Your task to perform on an android device: Clear the cart on newegg.com. Search for "razer thresher" on newegg.com, select the first entry, and add it to the cart. Image 0: 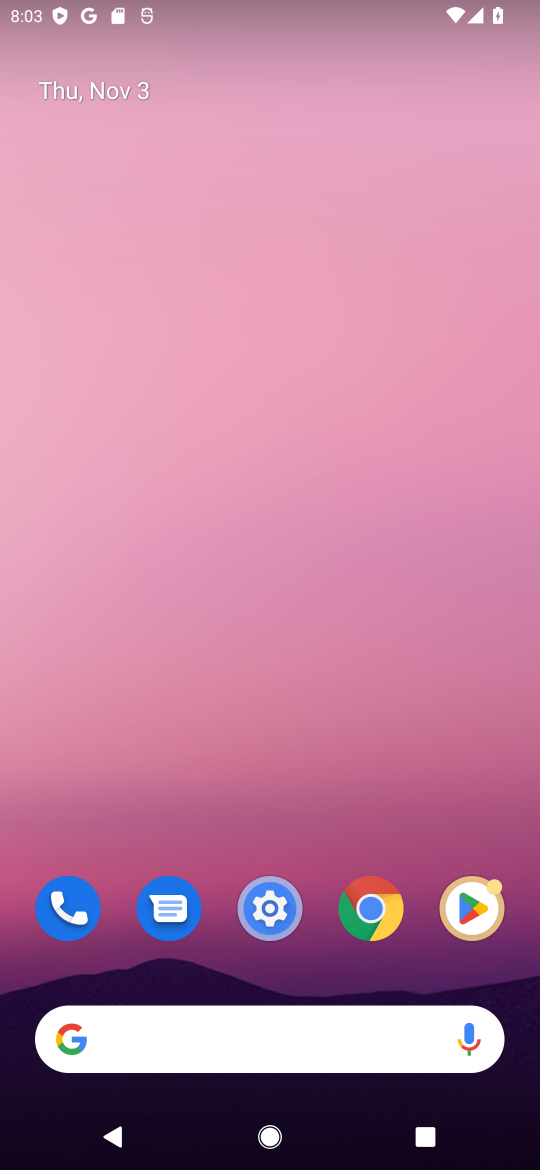
Step 0: click (384, 920)
Your task to perform on an android device: Clear the cart on newegg.com. Search for "razer thresher" on newegg.com, select the first entry, and add it to the cart. Image 1: 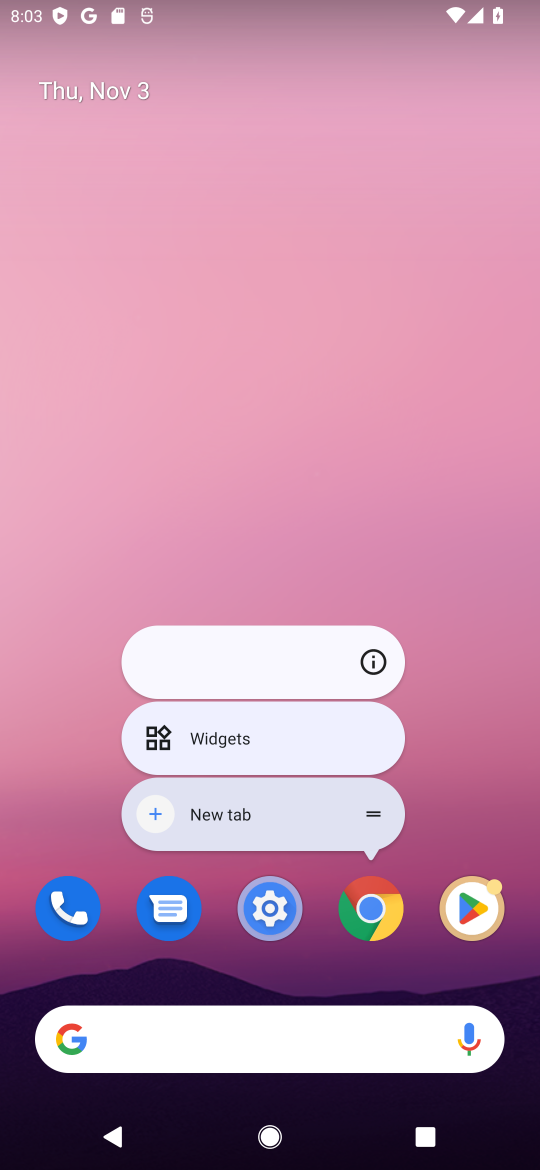
Step 1: click (384, 920)
Your task to perform on an android device: Clear the cart on newegg.com. Search for "razer thresher" on newegg.com, select the first entry, and add it to the cart. Image 2: 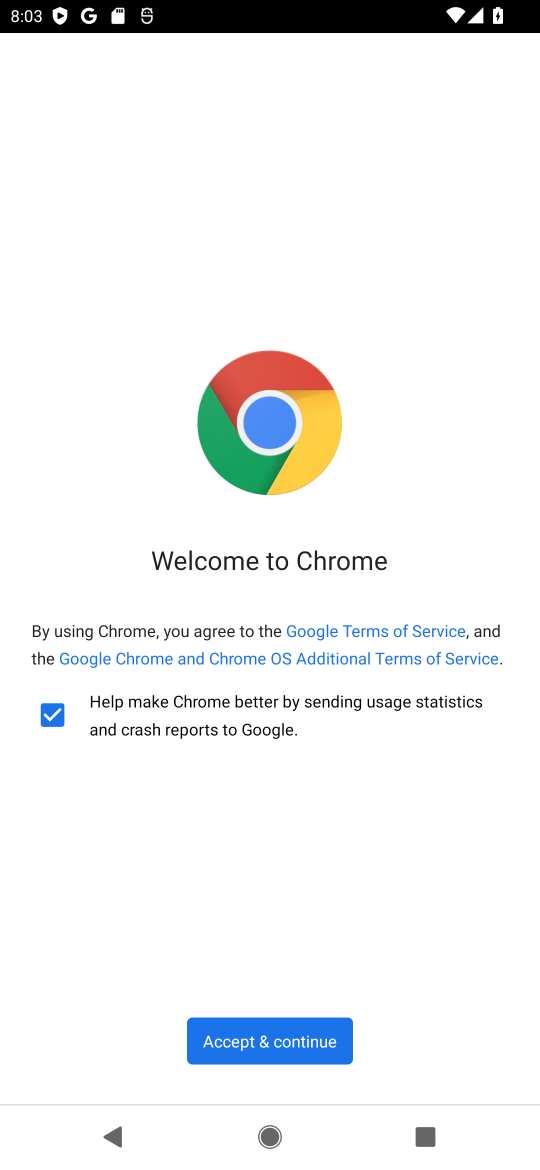
Step 2: click (318, 1034)
Your task to perform on an android device: Clear the cart on newegg.com. Search for "razer thresher" on newegg.com, select the first entry, and add it to the cart. Image 3: 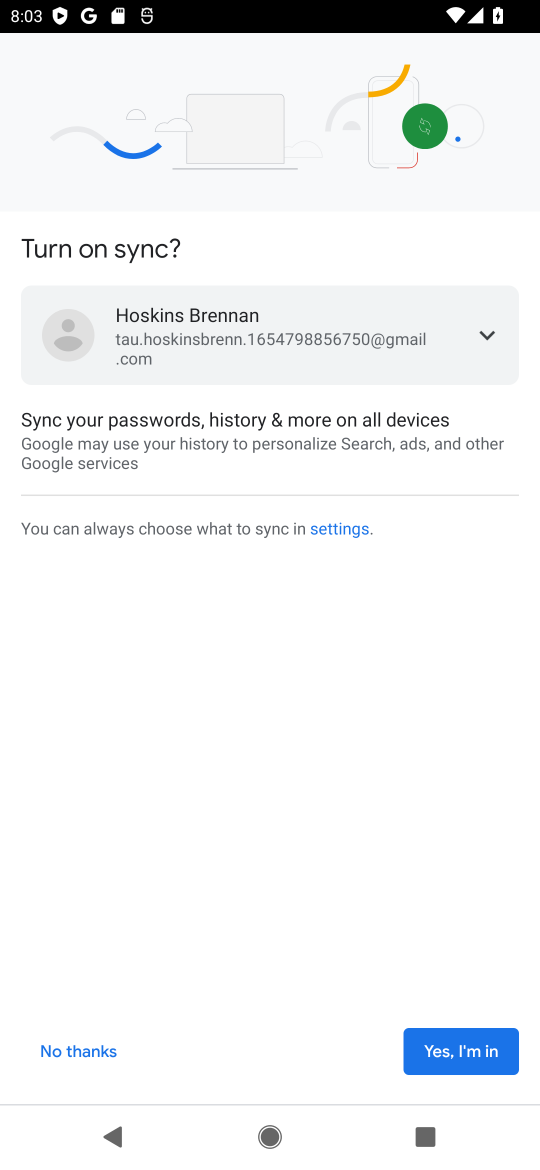
Step 3: click (440, 1061)
Your task to perform on an android device: Clear the cart on newegg.com. Search for "razer thresher" on newegg.com, select the first entry, and add it to the cart. Image 4: 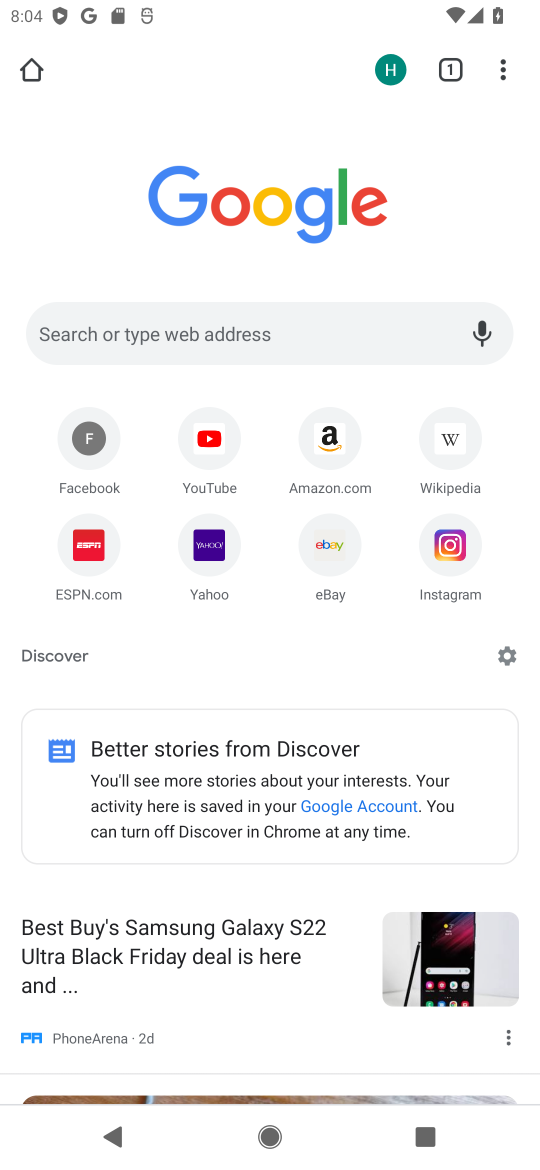
Step 4: click (219, 324)
Your task to perform on an android device: Clear the cart on newegg.com. Search for "razer thresher" on newegg.com, select the first entry, and add it to the cart. Image 5: 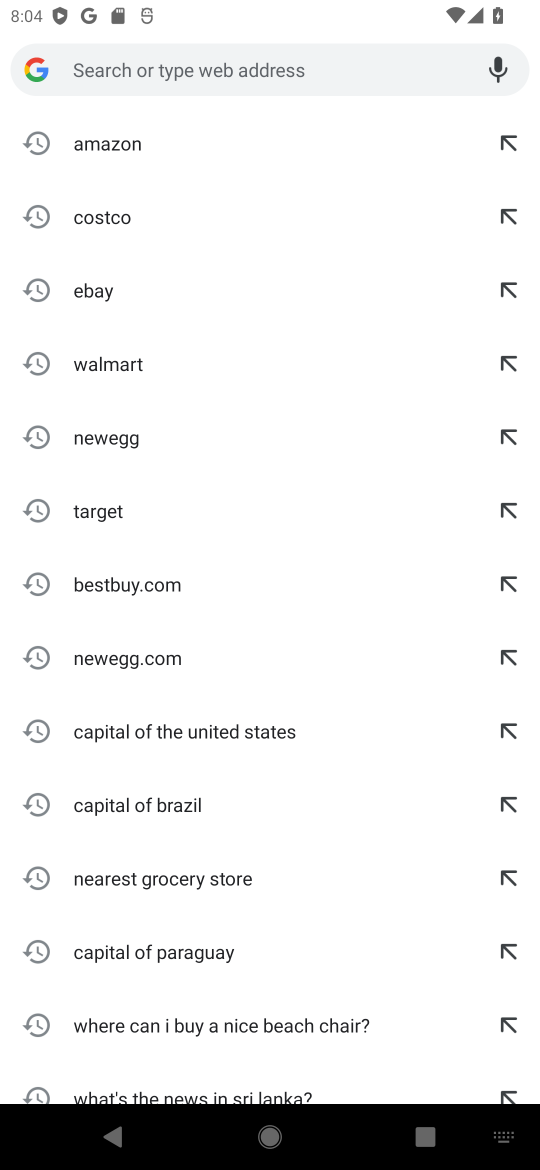
Step 5: click (153, 656)
Your task to perform on an android device: Clear the cart on newegg.com. Search for "razer thresher" on newegg.com, select the first entry, and add it to the cart. Image 6: 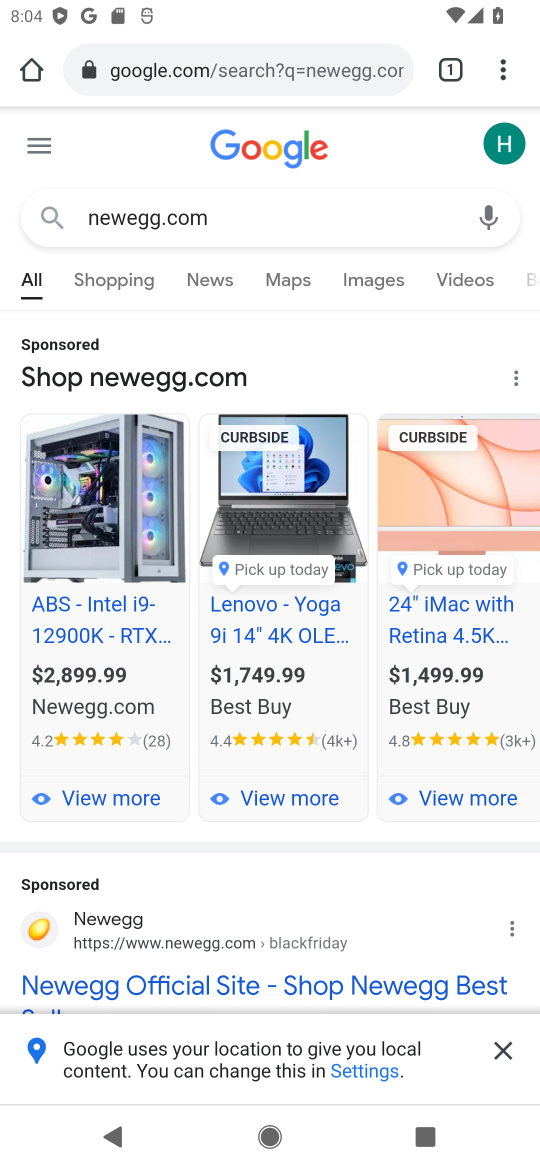
Step 6: click (250, 943)
Your task to perform on an android device: Clear the cart on newegg.com. Search for "razer thresher" on newegg.com, select the first entry, and add it to the cart. Image 7: 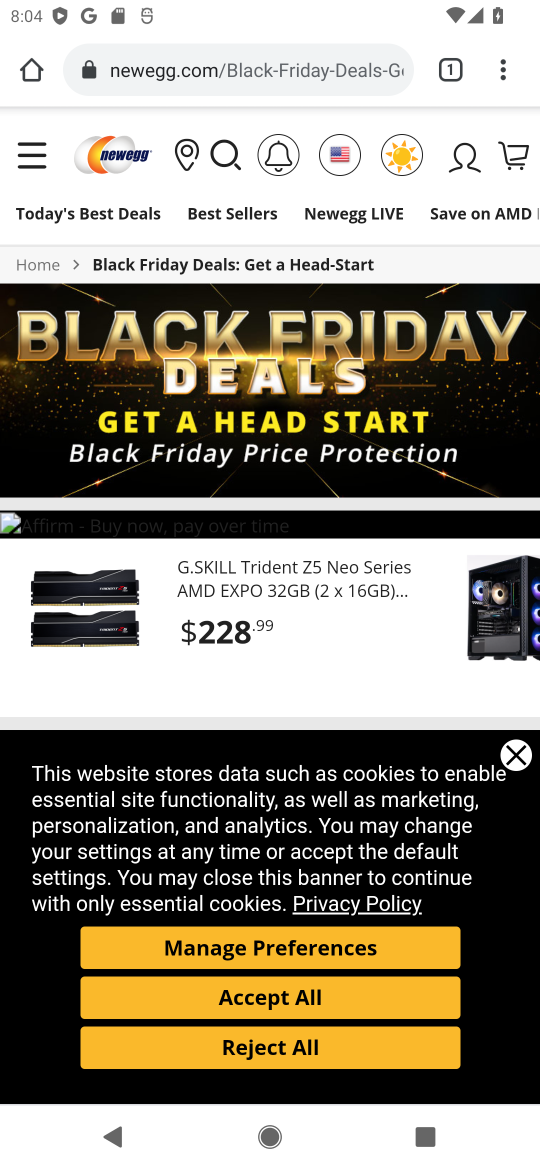
Step 7: click (308, 998)
Your task to perform on an android device: Clear the cart on newegg.com. Search for "razer thresher" on newegg.com, select the first entry, and add it to the cart. Image 8: 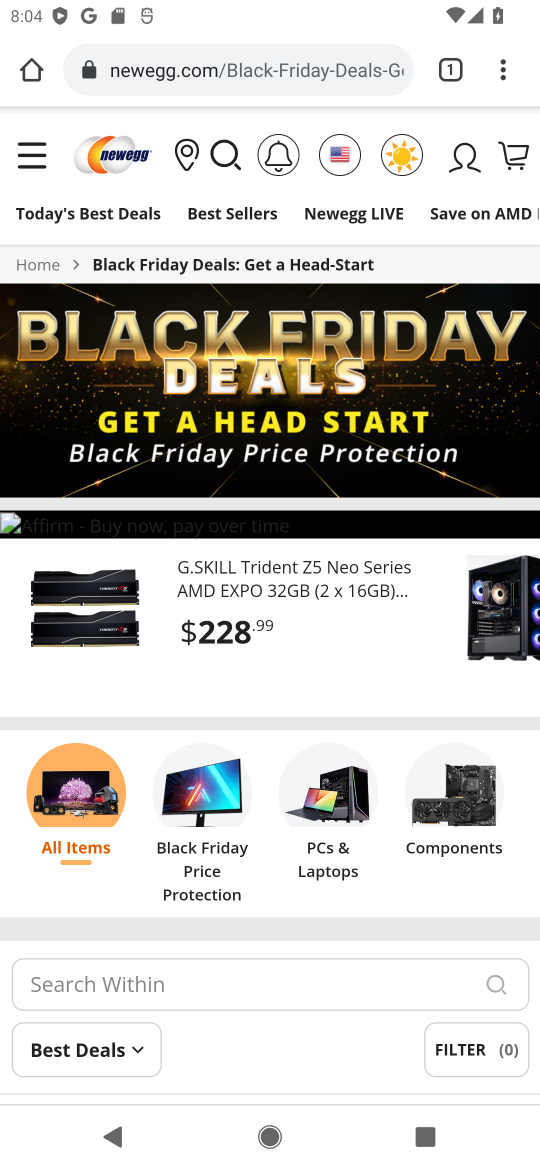
Step 8: drag from (287, 495) to (327, 785)
Your task to perform on an android device: Clear the cart on newegg.com. Search for "razer thresher" on newegg.com, select the first entry, and add it to the cart. Image 9: 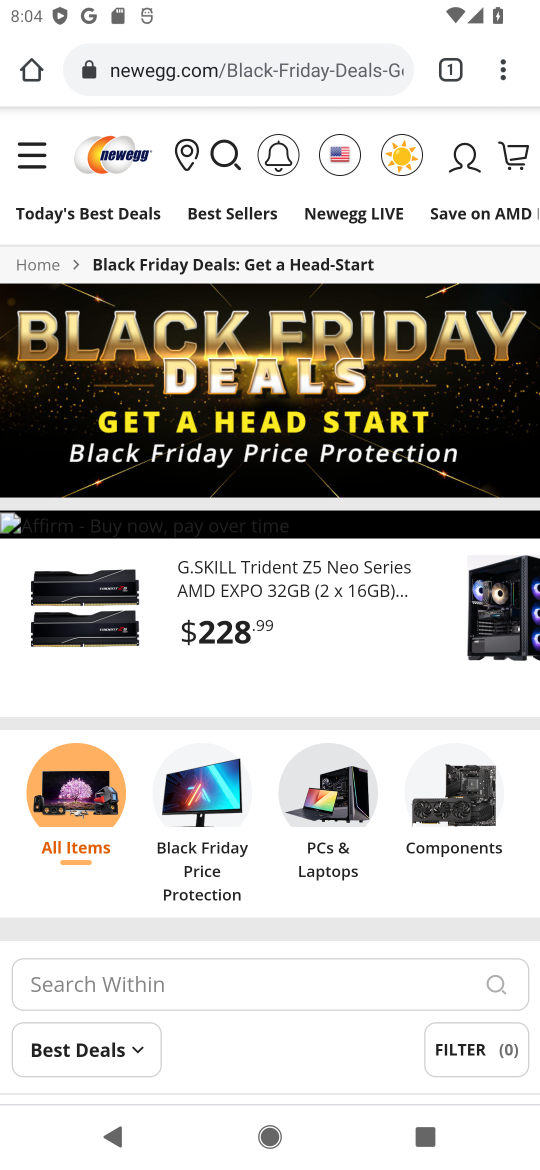
Step 9: drag from (355, 782) to (371, 369)
Your task to perform on an android device: Clear the cart on newegg.com. Search for "razer thresher" on newegg.com, select the first entry, and add it to the cart. Image 10: 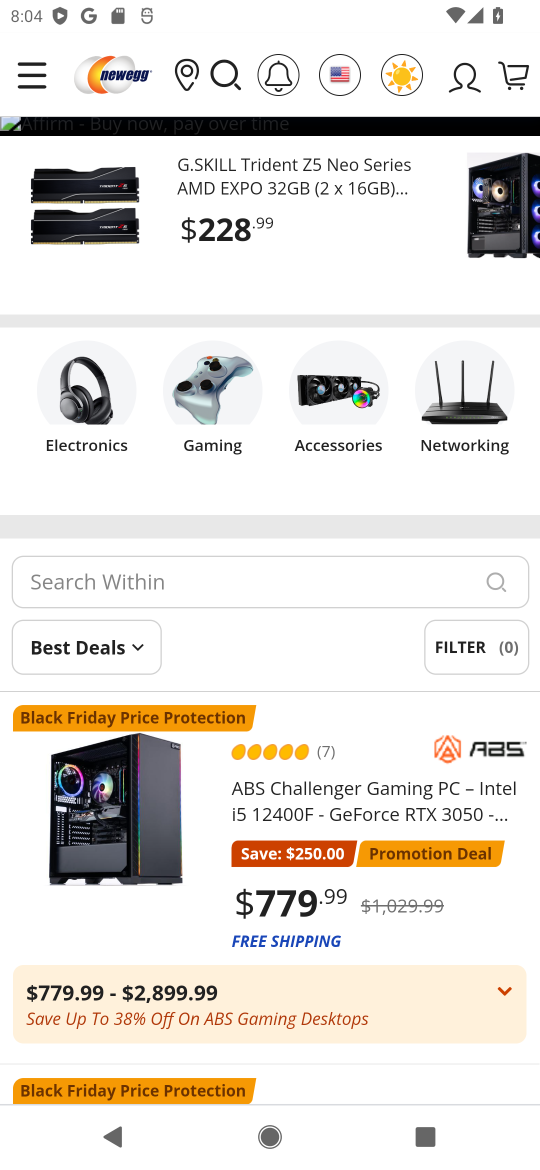
Step 10: drag from (367, 338) to (360, 777)
Your task to perform on an android device: Clear the cart on newegg.com. Search for "razer thresher" on newegg.com, select the first entry, and add it to the cart. Image 11: 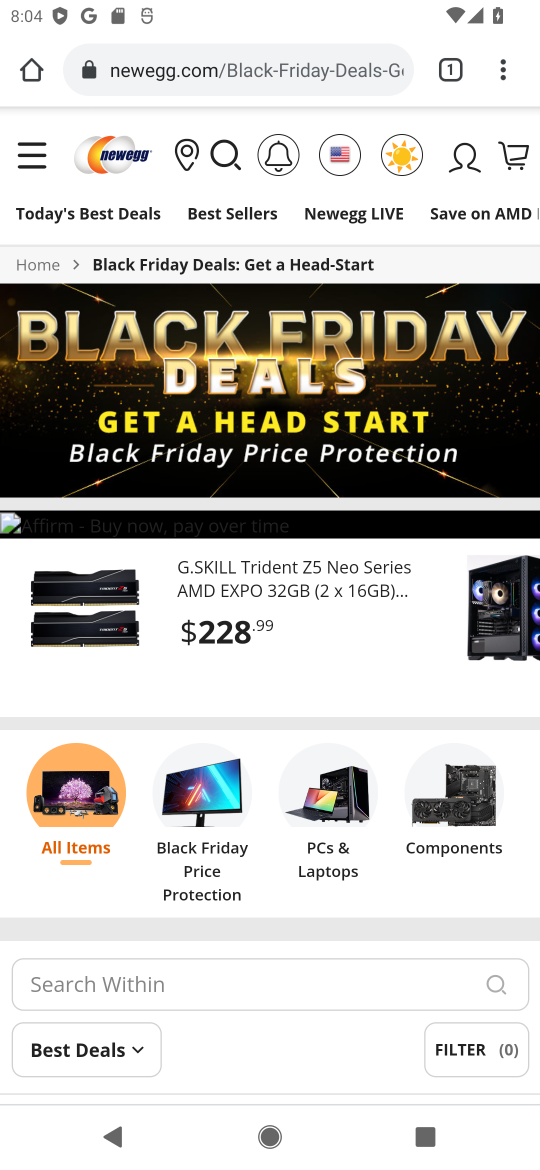
Step 11: click (226, 155)
Your task to perform on an android device: Clear the cart on newegg.com. Search for "razer thresher" on newegg.com, select the first entry, and add it to the cart. Image 12: 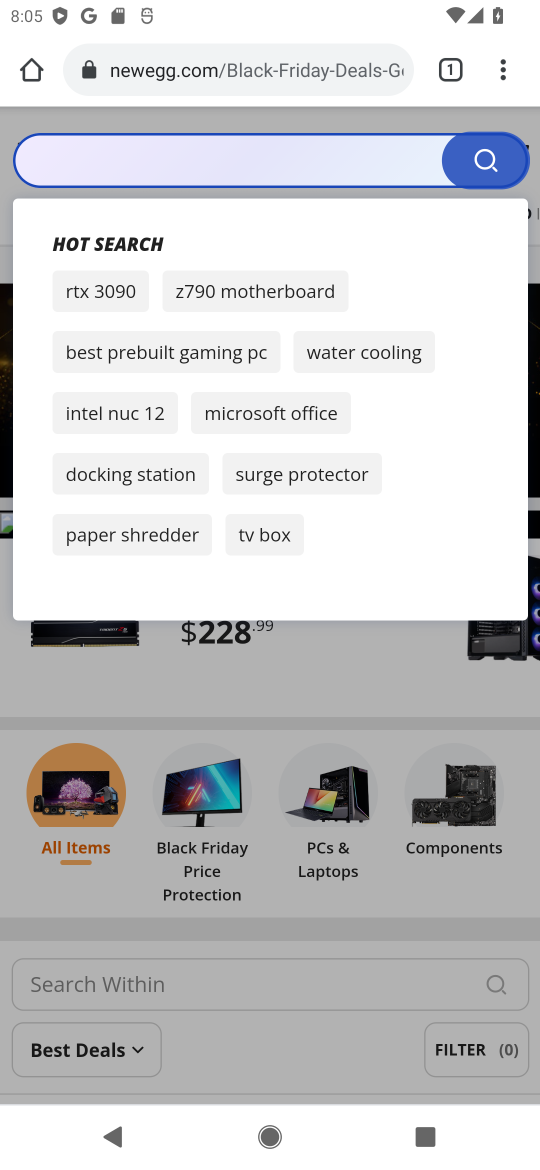
Step 12: type "razer thresher"
Your task to perform on an android device: Clear the cart on newegg.com. Search for "razer thresher" on newegg.com, select the first entry, and add it to the cart. Image 13: 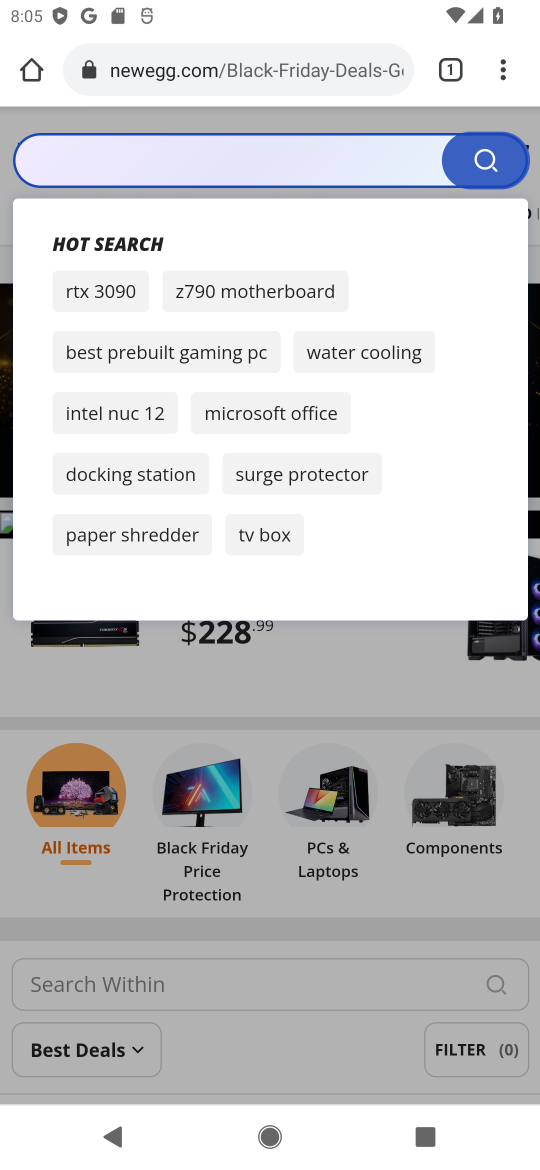
Step 13: press enter
Your task to perform on an android device: Clear the cart on newegg.com. Search for "razer thresher" on newegg.com, select the first entry, and add it to the cart. Image 14: 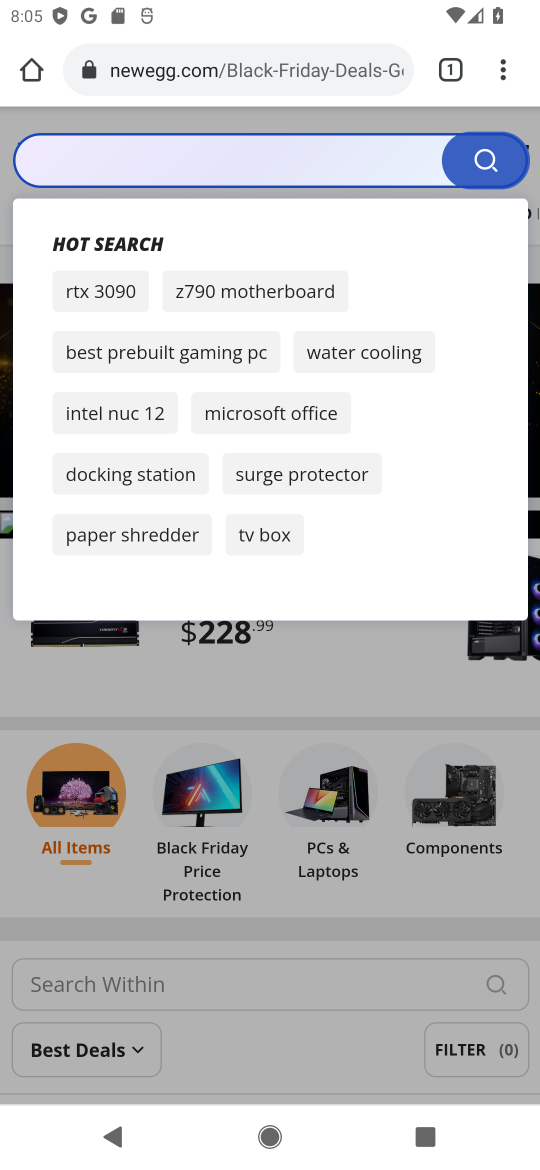
Step 14: click (326, 150)
Your task to perform on an android device: Clear the cart on newegg.com. Search for "razer thresher" on newegg.com, select the first entry, and add it to the cart. Image 15: 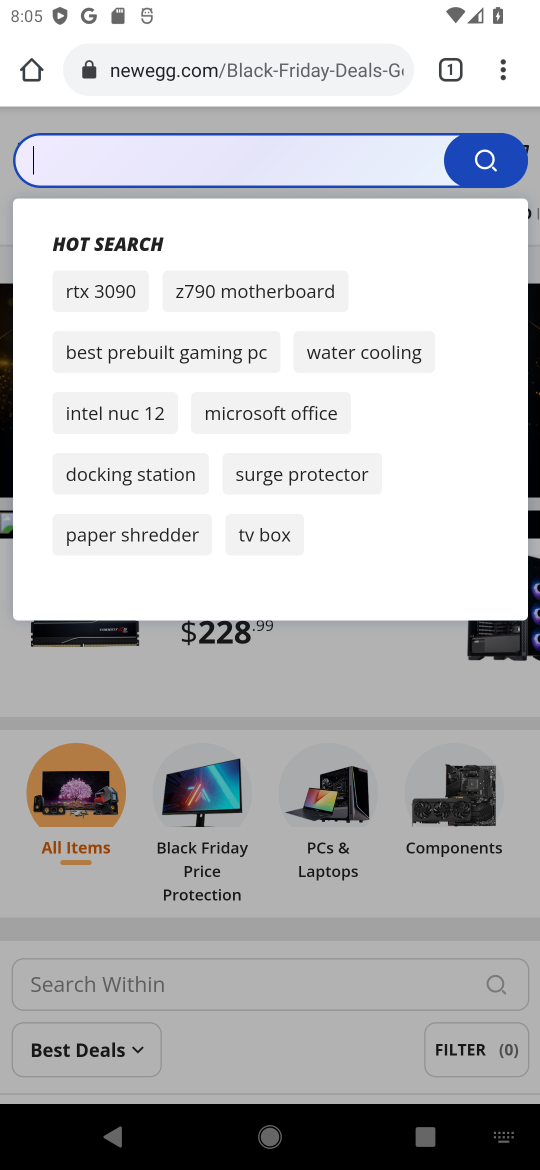
Step 15: type "razer thresher"
Your task to perform on an android device: Clear the cart on newegg.com. Search for "razer thresher" on newegg.com, select the first entry, and add it to the cart. Image 16: 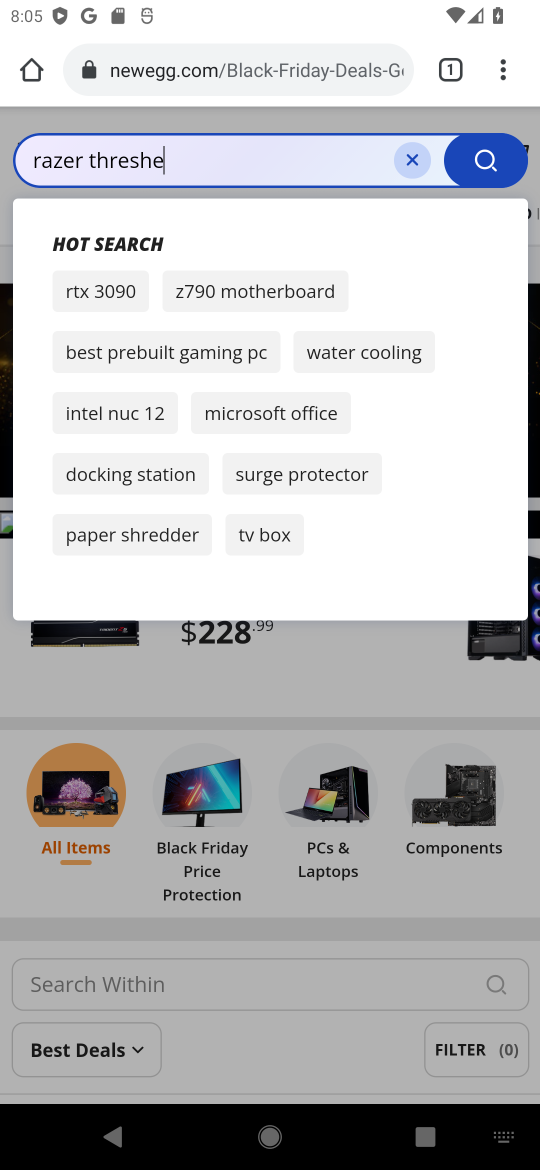
Step 16: press enter
Your task to perform on an android device: Clear the cart on newegg.com. Search for "razer thresher" on newegg.com, select the first entry, and add it to the cart. Image 17: 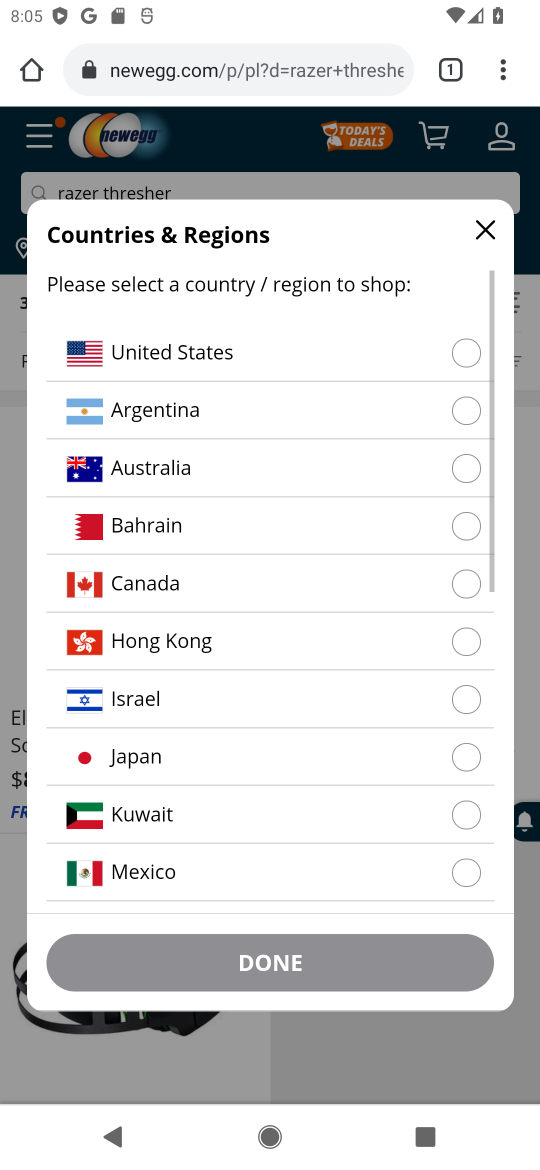
Step 17: click (469, 357)
Your task to perform on an android device: Clear the cart on newegg.com. Search for "razer thresher" on newegg.com, select the first entry, and add it to the cart. Image 18: 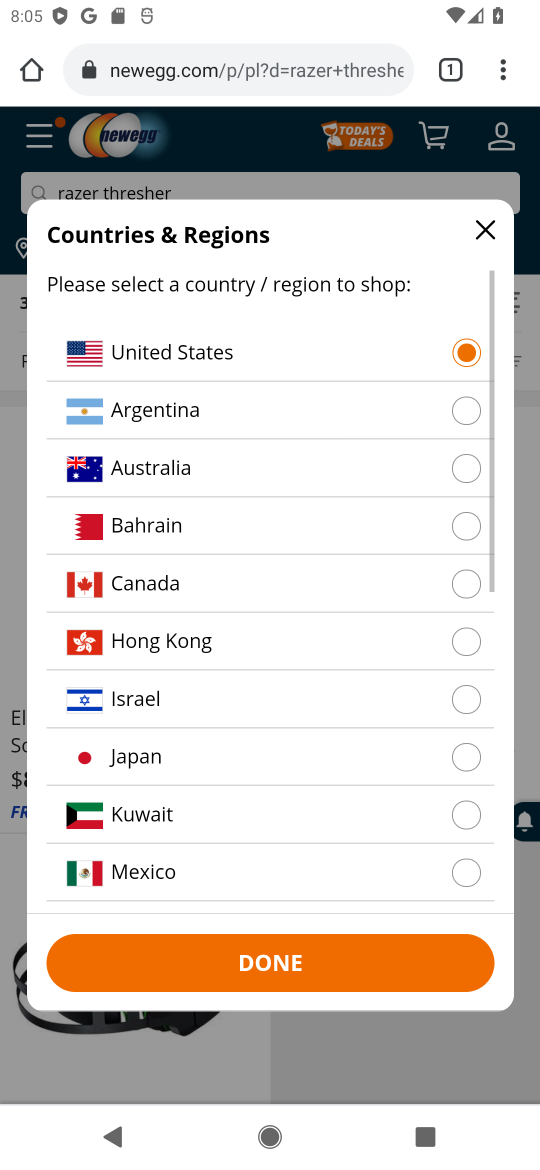
Step 18: click (341, 967)
Your task to perform on an android device: Clear the cart on newegg.com. Search for "razer thresher" on newegg.com, select the first entry, and add it to the cart. Image 19: 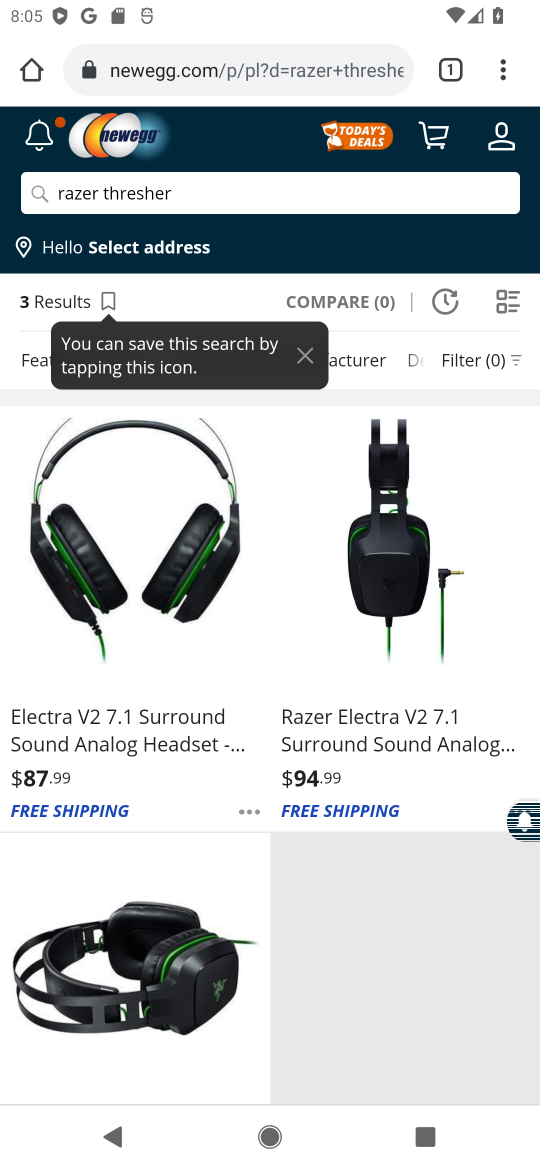
Step 19: drag from (248, 677) to (235, 286)
Your task to perform on an android device: Clear the cart on newegg.com. Search for "razer thresher" on newegg.com, select the first entry, and add it to the cart. Image 20: 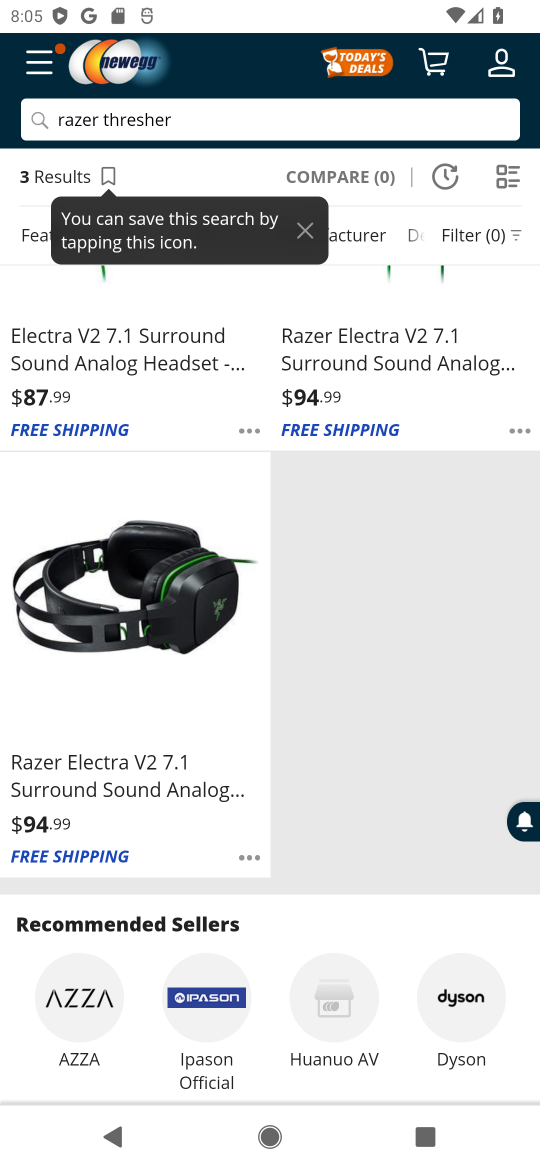
Step 20: drag from (213, 594) to (362, 1102)
Your task to perform on an android device: Clear the cart on newegg.com. Search for "razer thresher" on newegg.com, select the first entry, and add it to the cart. Image 21: 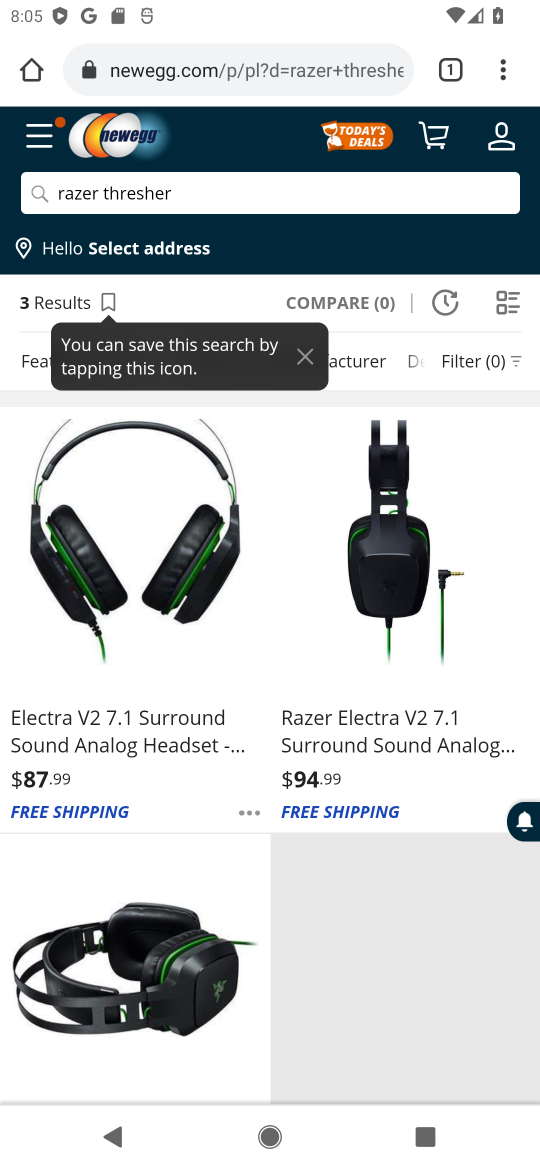
Step 21: click (154, 515)
Your task to perform on an android device: Clear the cart on newegg.com. Search for "razer thresher" on newegg.com, select the first entry, and add it to the cart. Image 22: 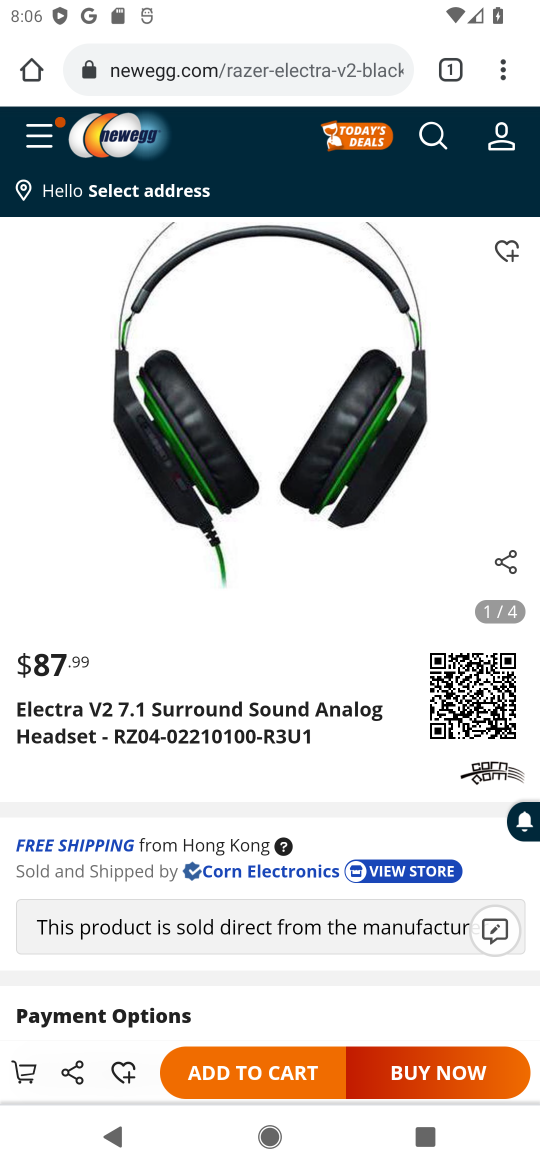
Step 22: click (244, 1063)
Your task to perform on an android device: Clear the cart on newegg.com. Search for "razer thresher" on newegg.com, select the first entry, and add it to the cart. Image 23: 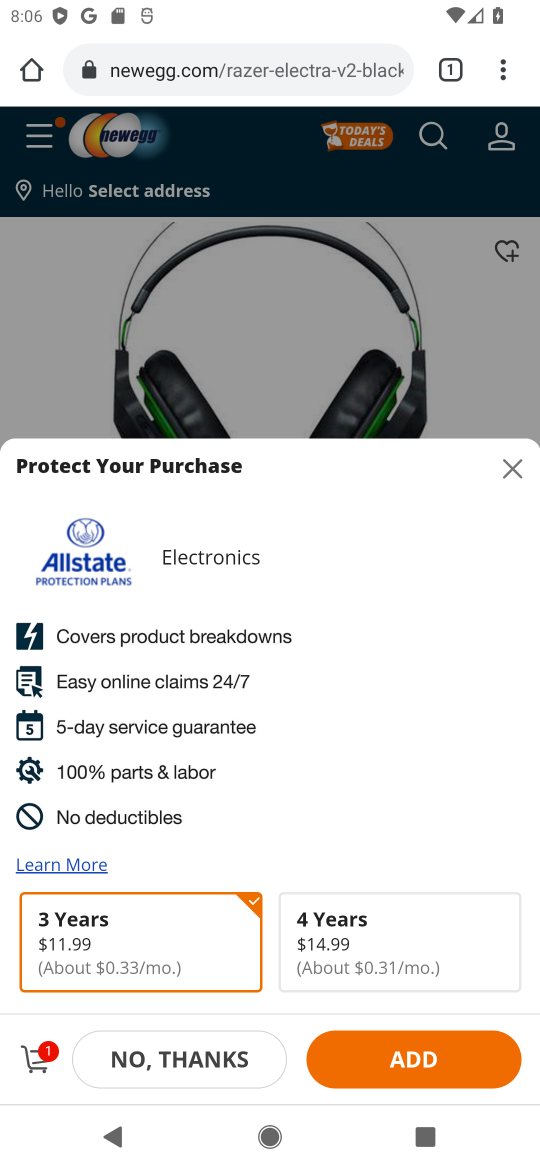
Step 23: click (520, 479)
Your task to perform on an android device: Clear the cart on newegg.com. Search for "razer thresher" on newegg.com, select the first entry, and add it to the cart. Image 24: 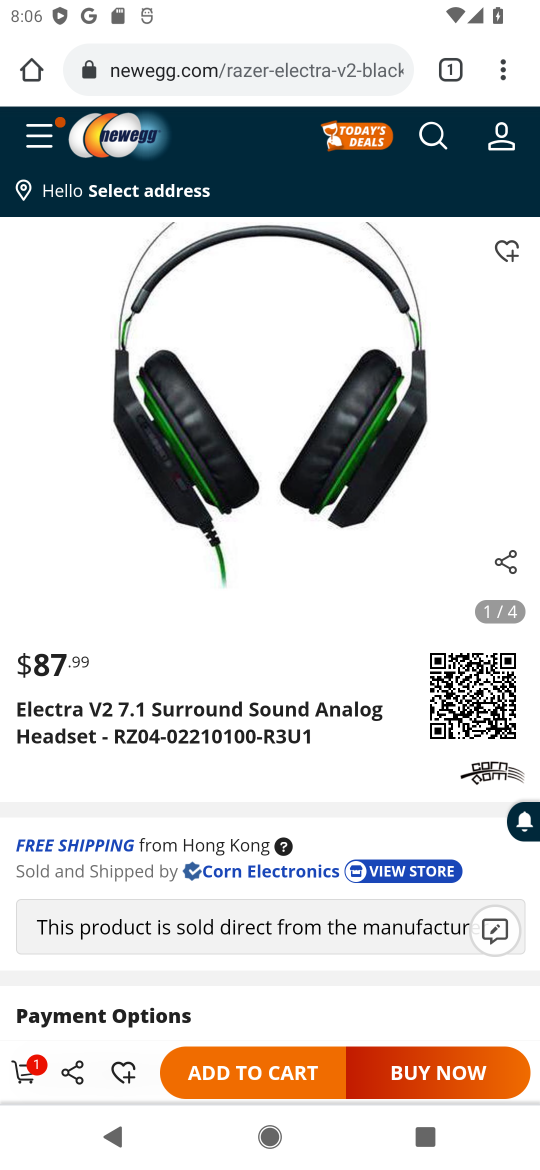
Step 24: click (20, 1087)
Your task to perform on an android device: Clear the cart on newegg.com. Search for "razer thresher" on newegg.com, select the first entry, and add it to the cart. Image 25: 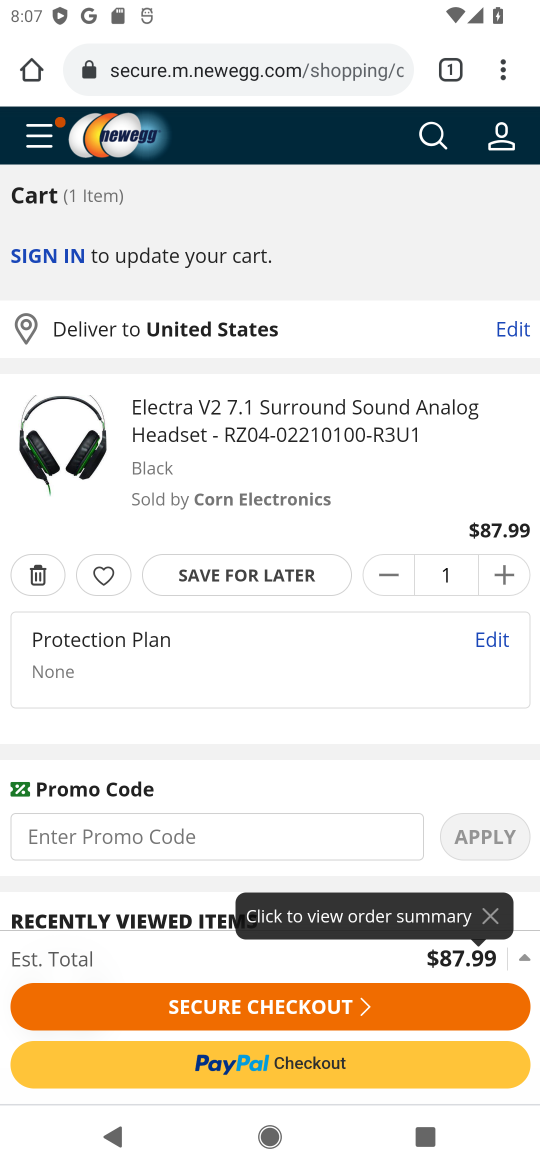
Step 25: task complete